Your task to perform on an android device: See recent photos Image 0: 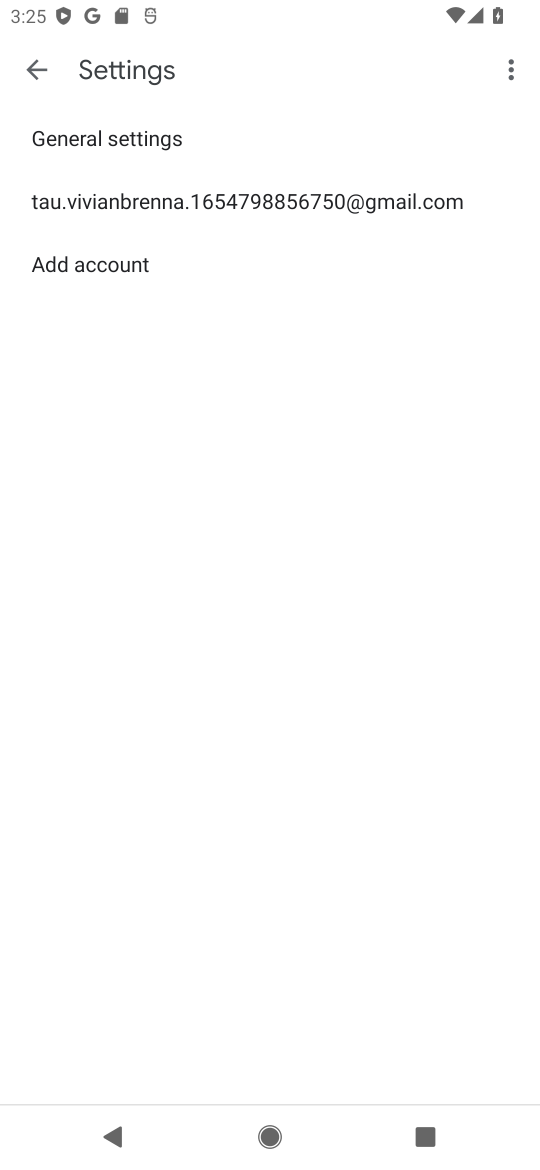
Step 0: press back button
Your task to perform on an android device: See recent photos Image 1: 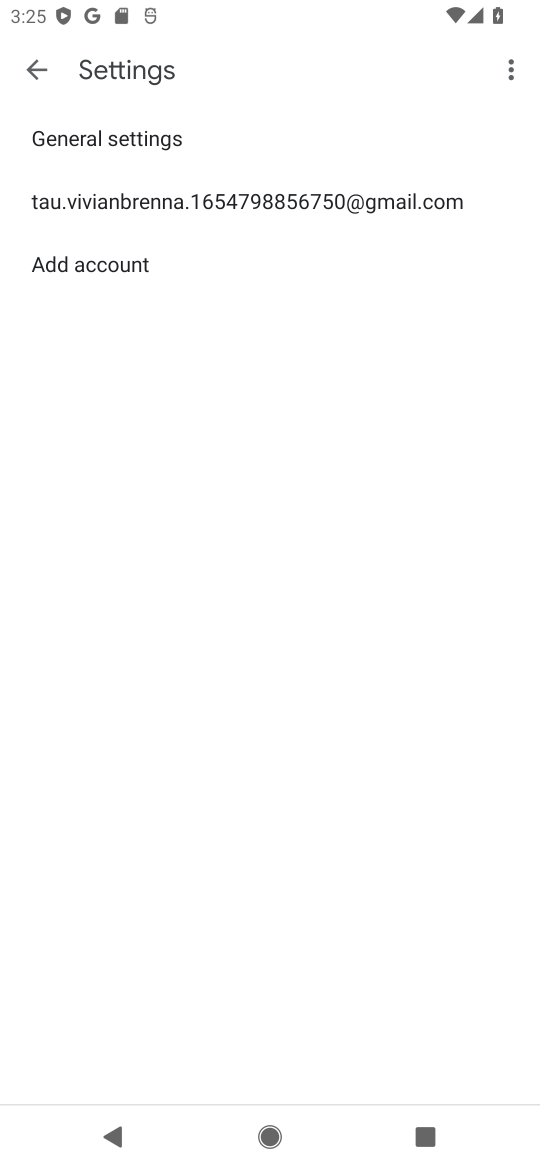
Step 1: press back button
Your task to perform on an android device: See recent photos Image 2: 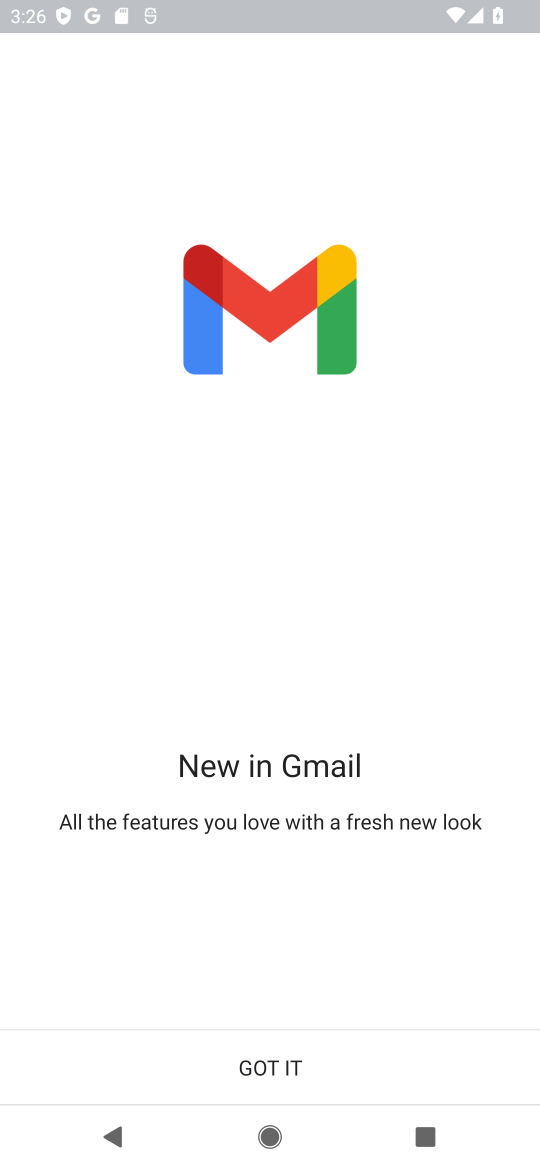
Step 2: press back button
Your task to perform on an android device: See recent photos Image 3: 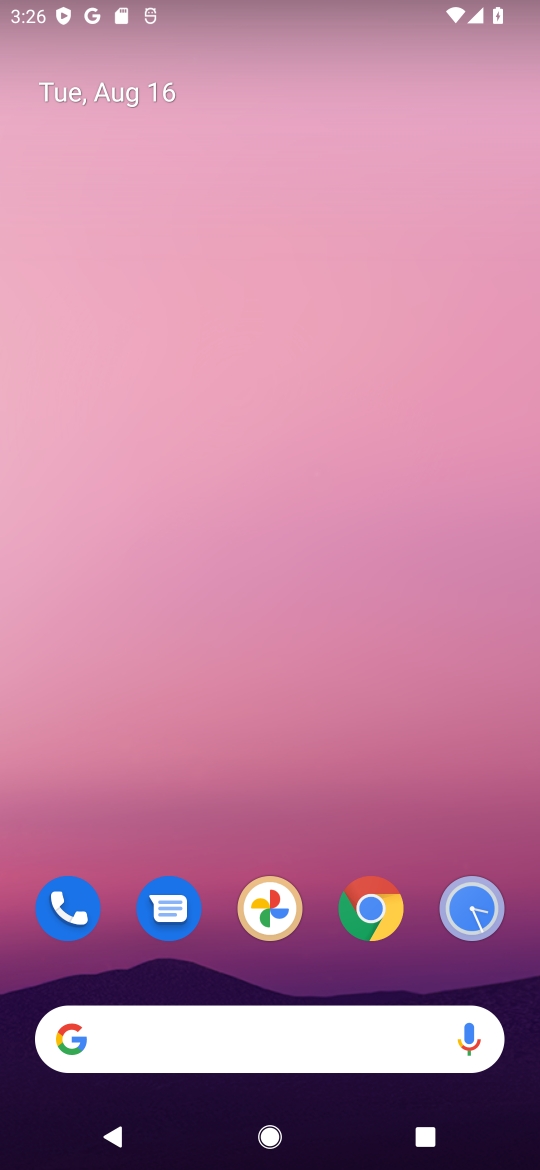
Step 3: click (279, 921)
Your task to perform on an android device: See recent photos Image 4: 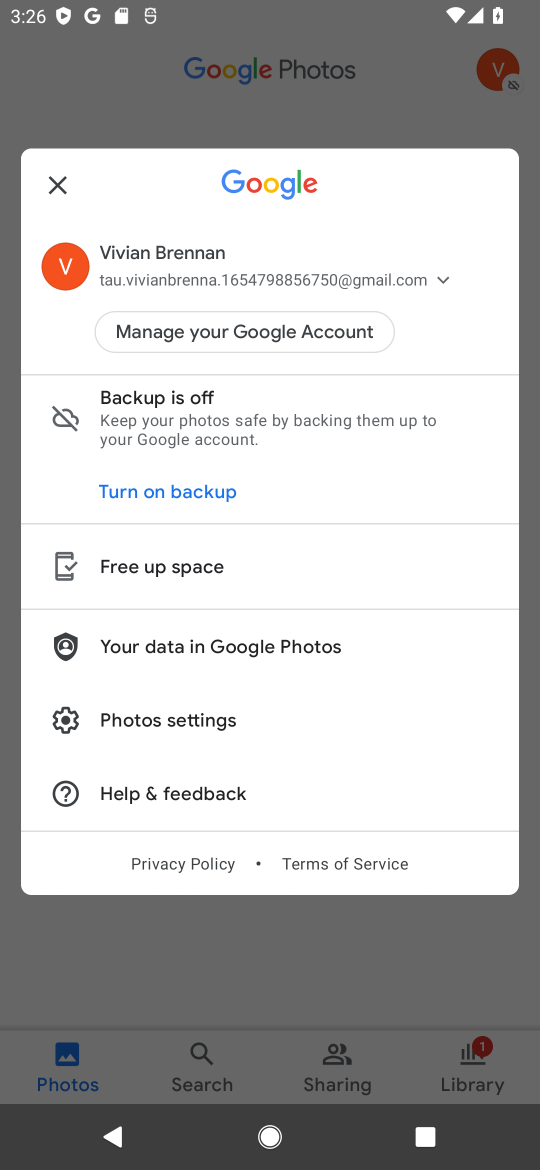
Step 4: click (293, 931)
Your task to perform on an android device: See recent photos Image 5: 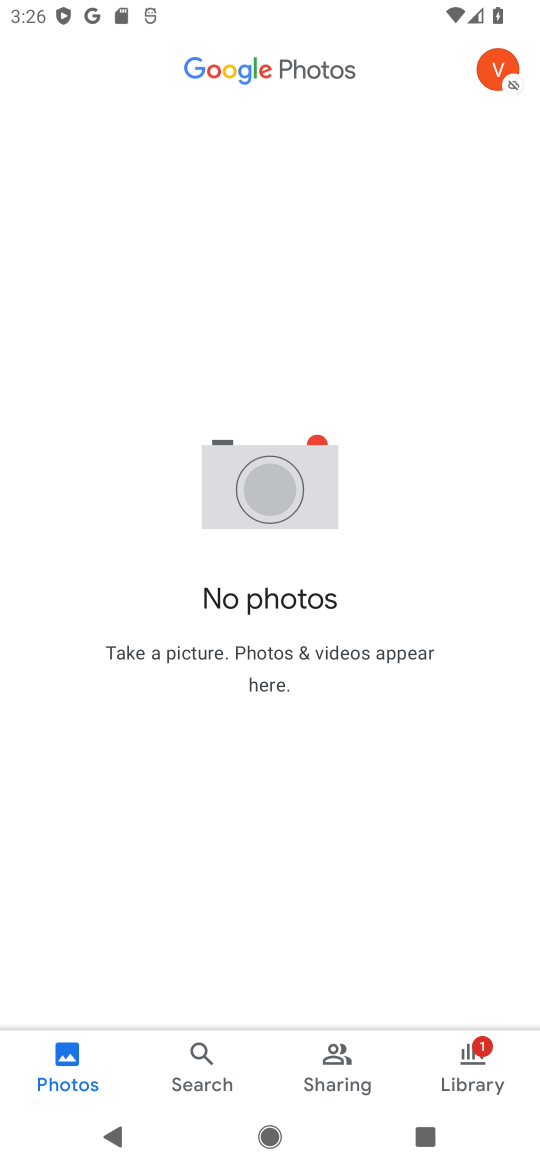
Step 5: click (45, 1055)
Your task to perform on an android device: See recent photos Image 6: 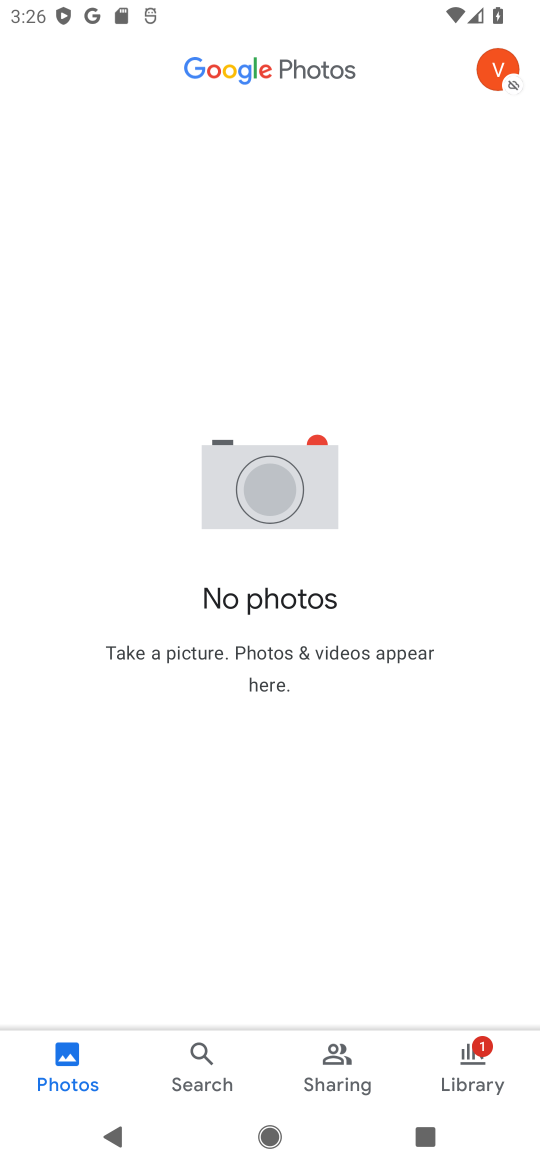
Step 6: task complete